Your task to perform on an android device: Open Youtube and go to the subscriptions tab Image 0: 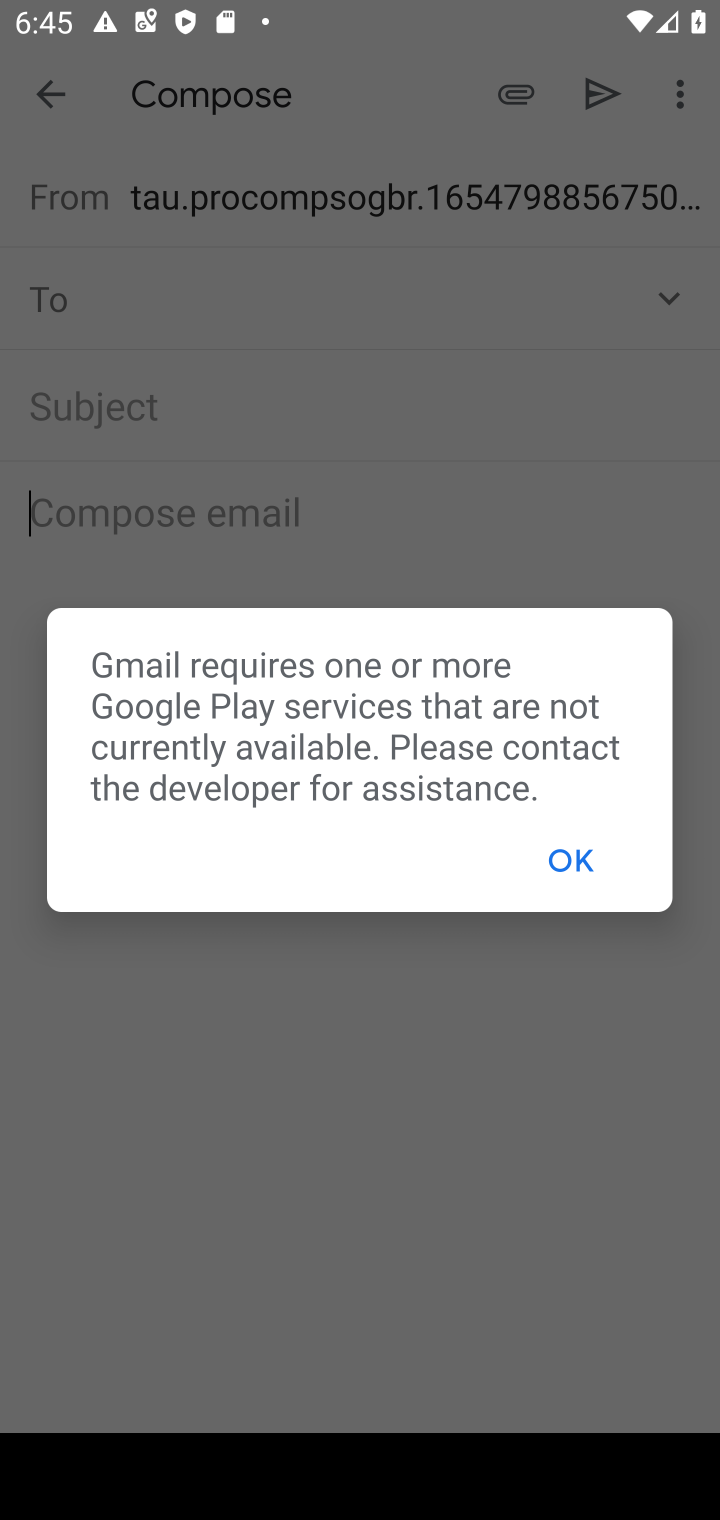
Step 0: press home button
Your task to perform on an android device: Open Youtube and go to the subscriptions tab Image 1: 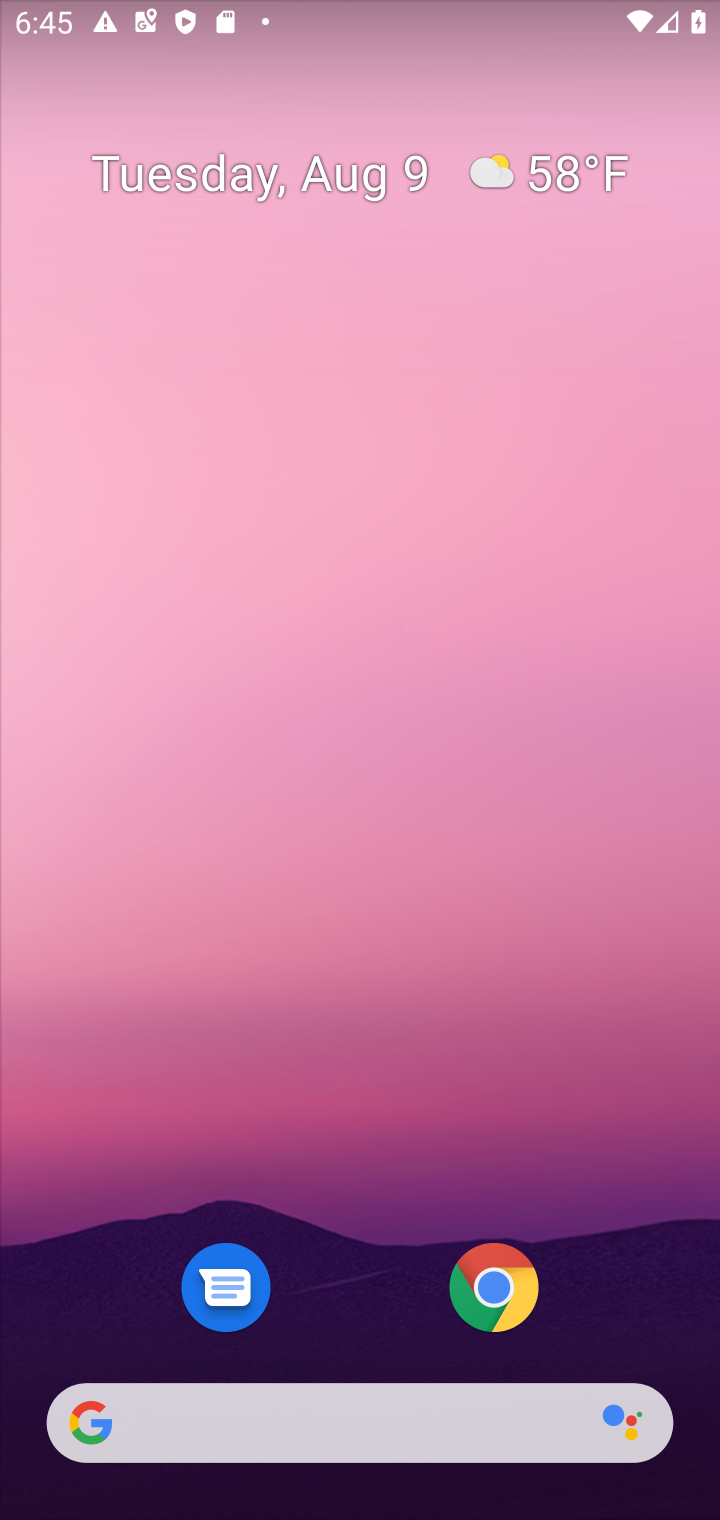
Step 1: drag from (423, 1104) to (597, 271)
Your task to perform on an android device: Open Youtube and go to the subscriptions tab Image 2: 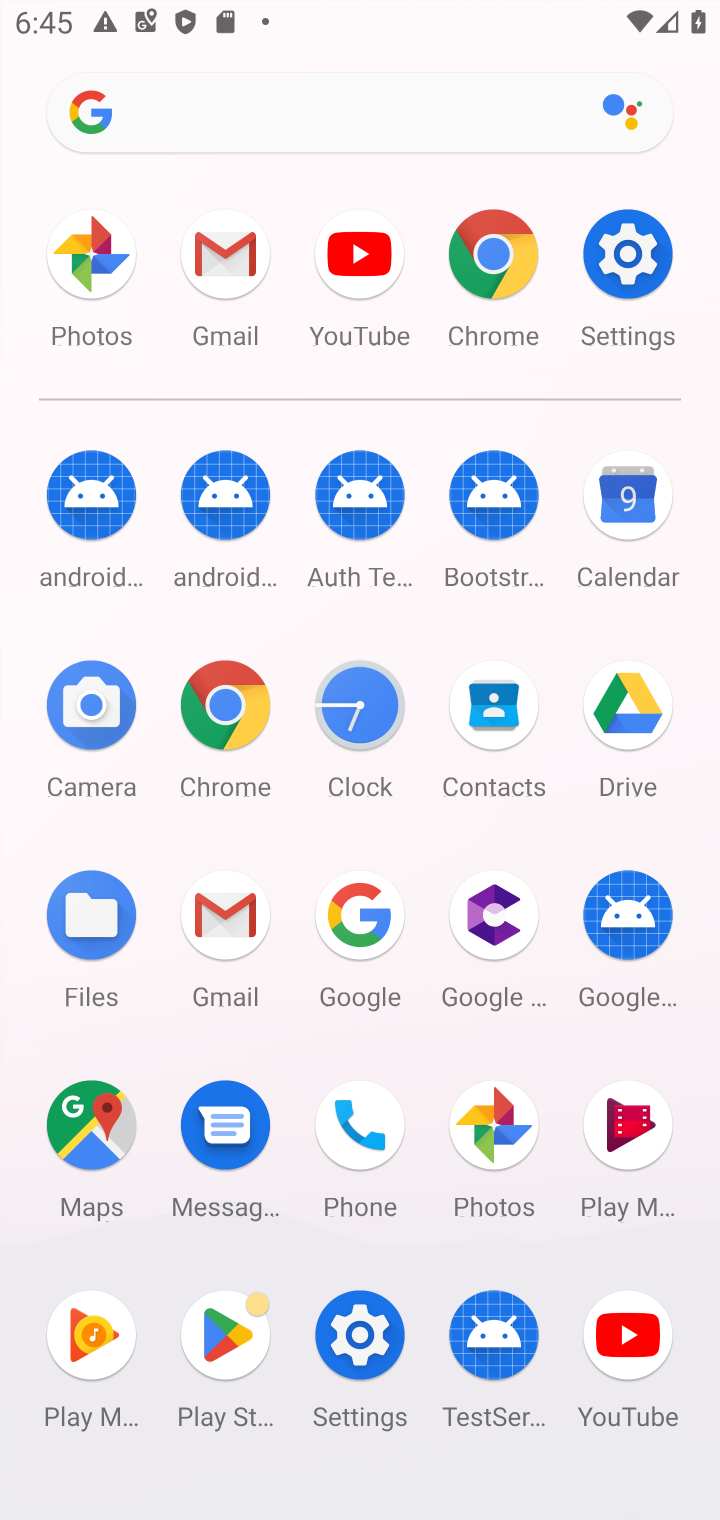
Step 2: click (640, 1325)
Your task to perform on an android device: Open Youtube and go to the subscriptions tab Image 3: 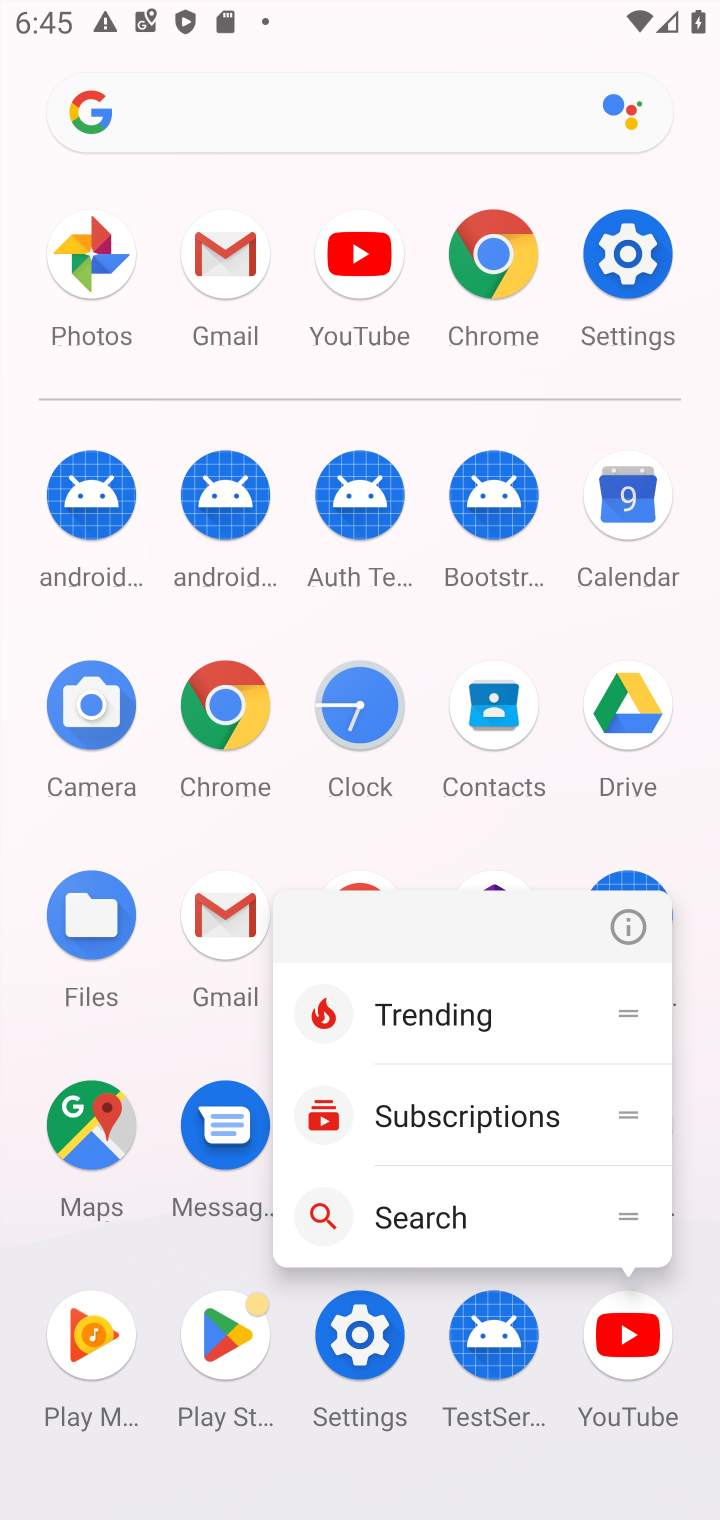
Step 3: click (643, 1348)
Your task to perform on an android device: Open Youtube and go to the subscriptions tab Image 4: 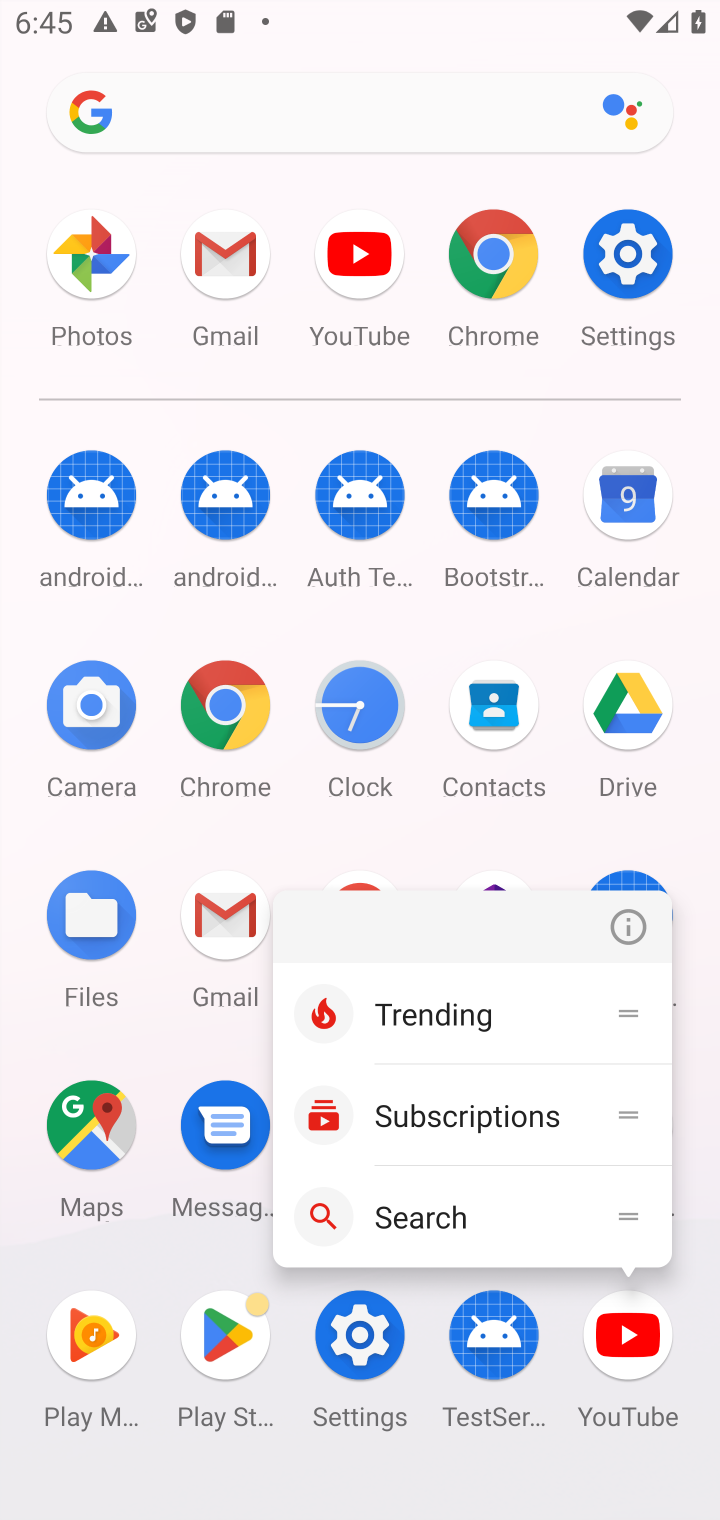
Step 4: click (664, 1363)
Your task to perform on an android device: Open Youtube and go to the subscriptions tab Image 5: 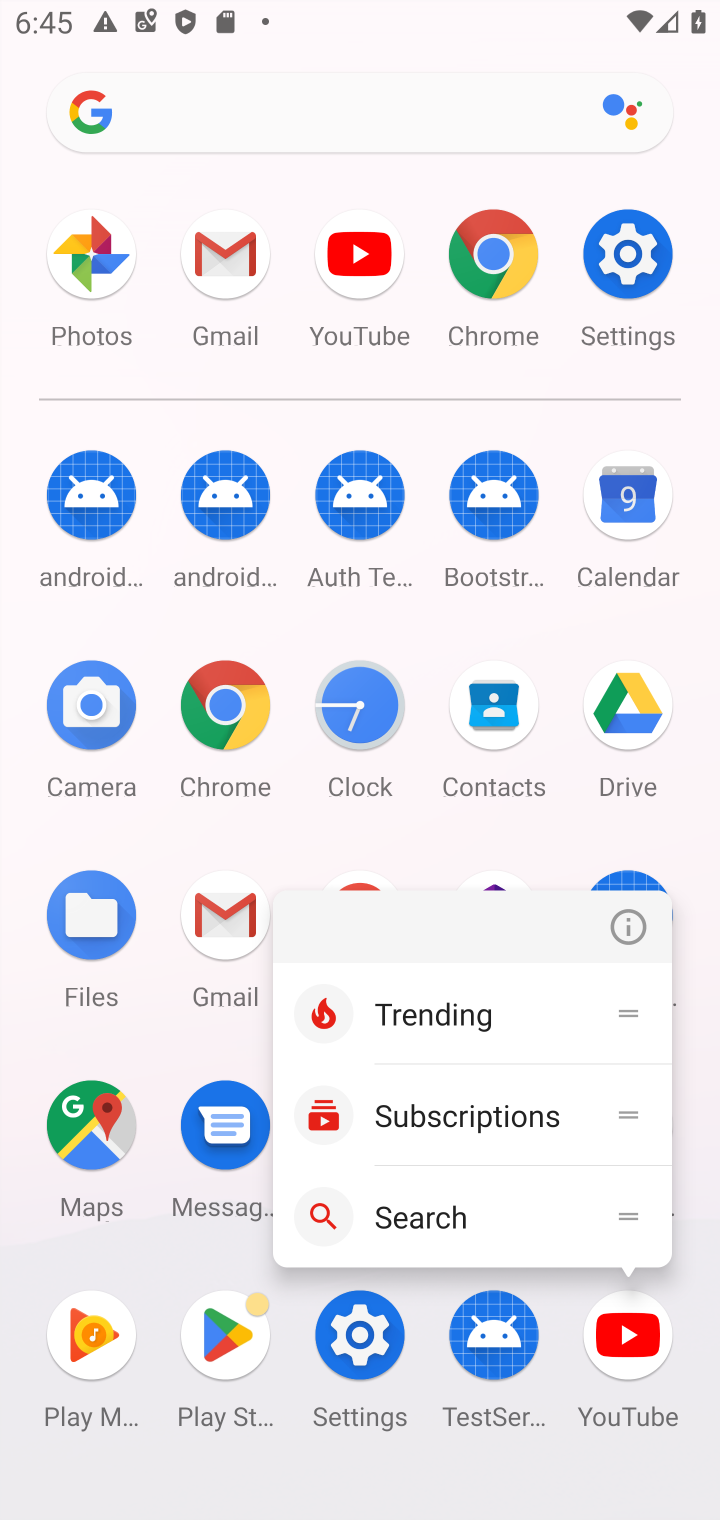
Step 5: task complete